Your task to perform on an android device: Go to calendar. Show me events next week Image 0: 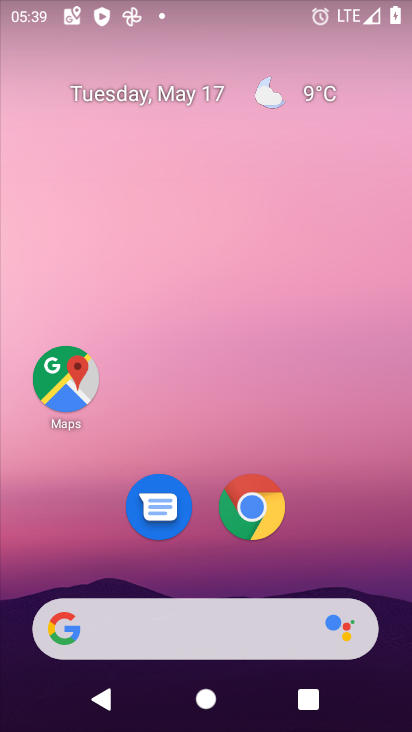
Step 0: drag from (332, 554) to (202, 6)
Your task to perform on an android device: Go to calendar. Show me events next week Image 1: 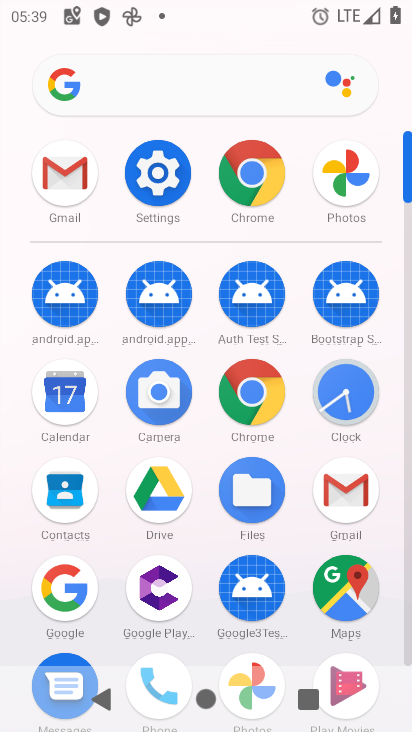
Step 1: click (59, 398)
Your task to perform on an android device: Go to calendar. Show me events next week Image 2: 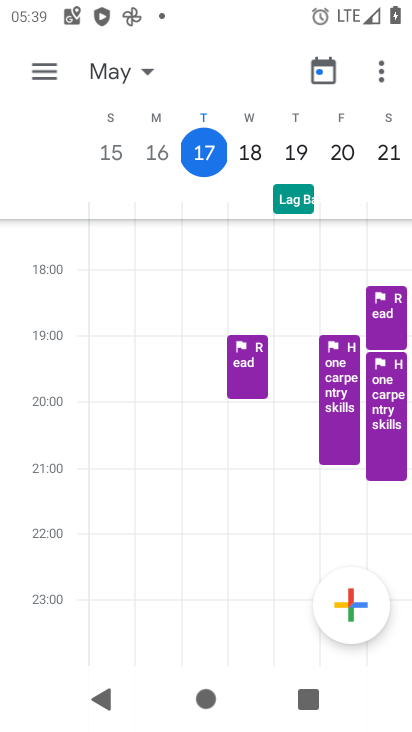
Step 2: click (127, 74)
Your task to perform on an android device: Go to calendar. Show me events next week Image 3: 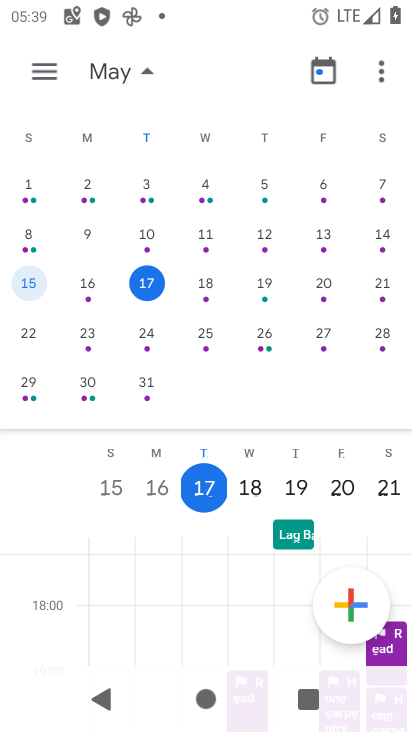
Step 3: click (40, 331)
Your task to perform on an android device: Go to calendar. Show me events next week Image 4: 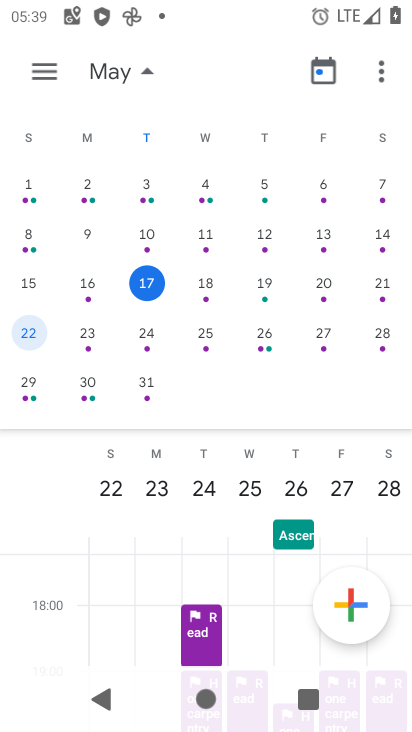
Step 4: task complete